Your task to perform on an android device: toggle pop-ups in chrome Image 0: 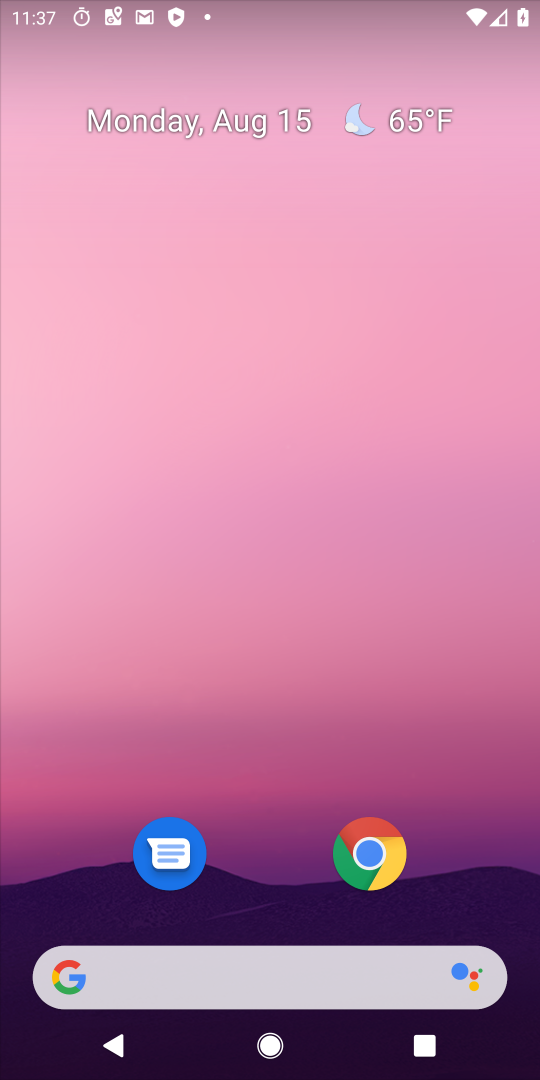
Step 0: click (376, 863)
Your task to perform on an android device: toggle pop-ups in chrome Image 1: 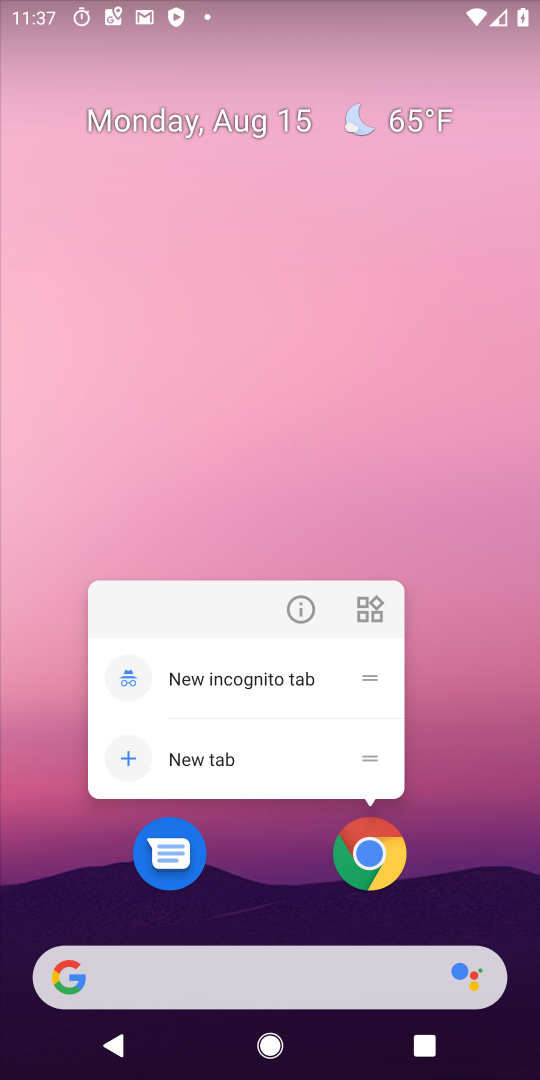
Step 1: click (376, 863)
Your task to perform on an android device: toggle pop-ups in chrome Image 2: 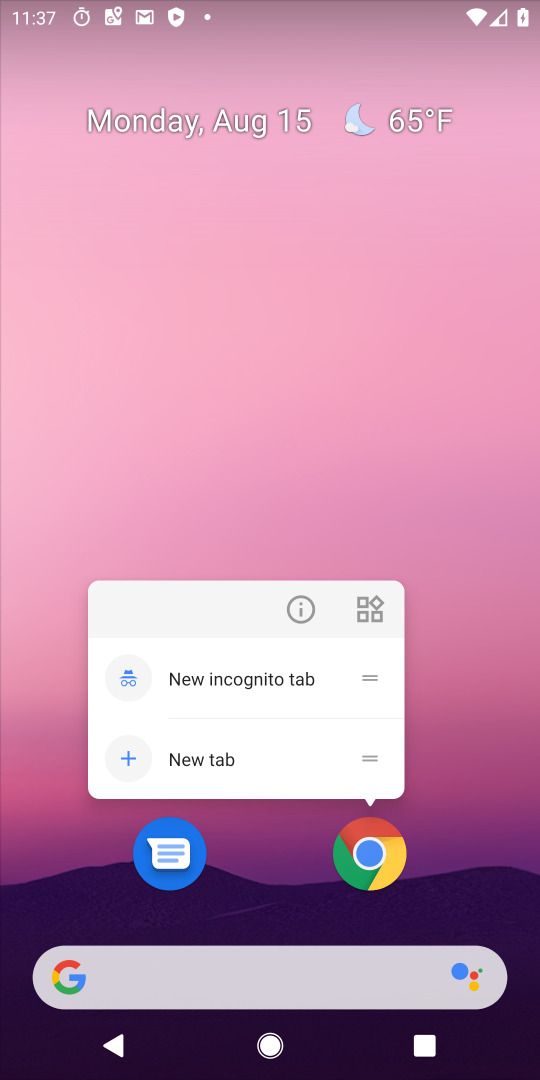
Step 2: click (361, 852)
Your task to perform on an android device: toggle pop-ups in chrome Image 3: 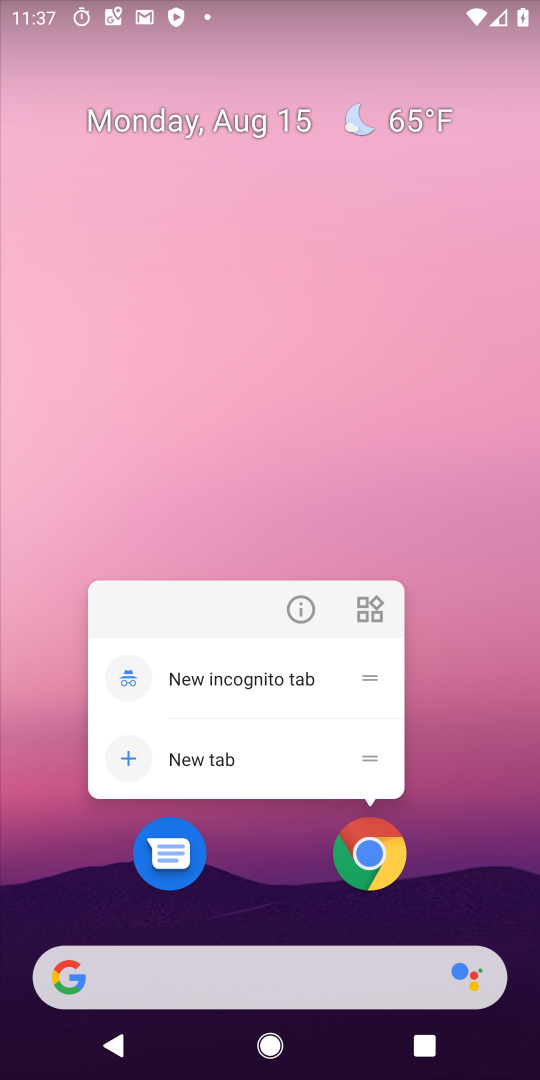
Step 3: click (361, 850)
Your task to perform on an android device: toggle pop-ups in chrome Image 4: 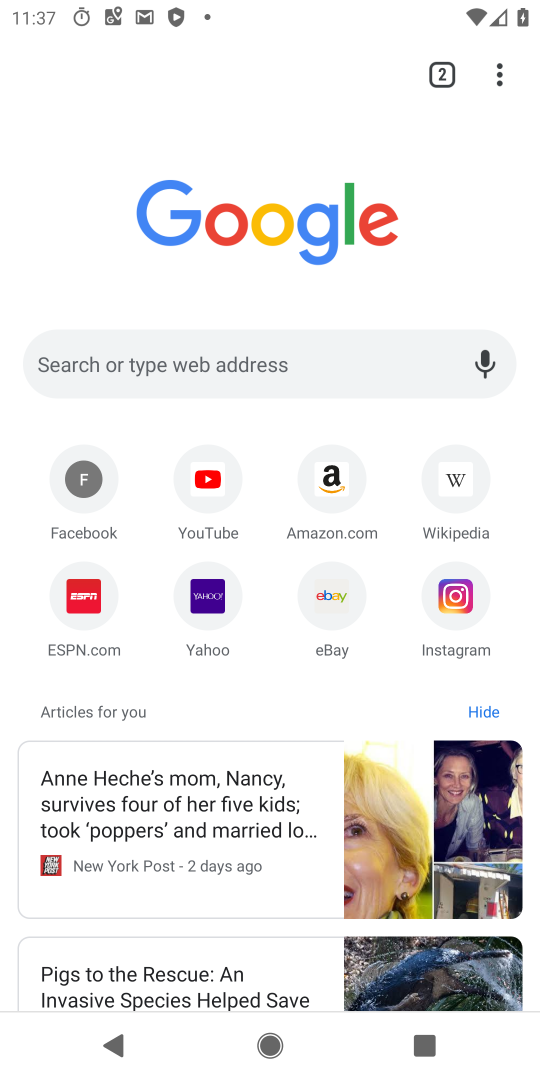
Step 4: click (494, 69)
Your task to perform on an android device: toggle pop-ups in chrome Image 5: 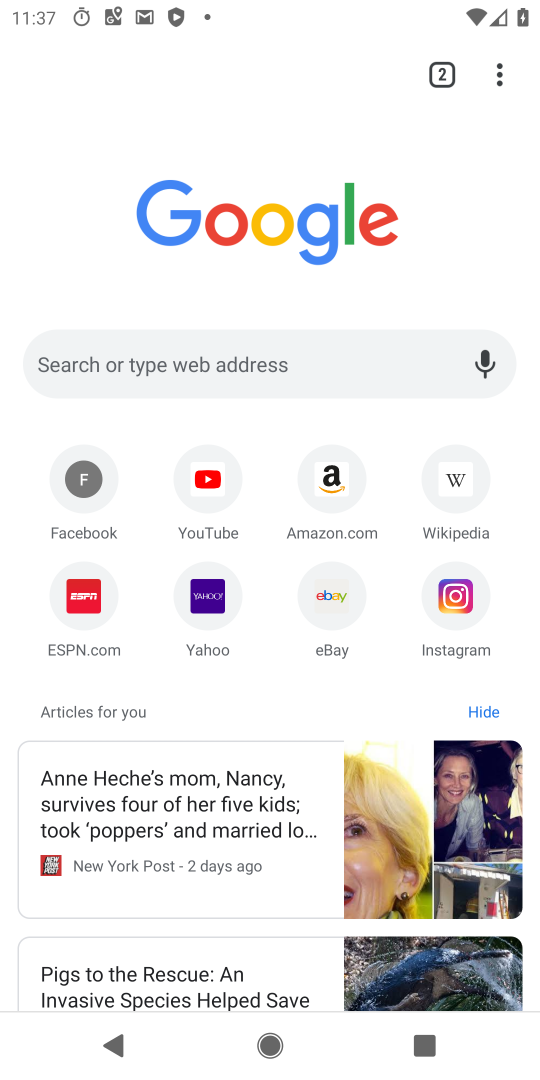
Step 5: click (497, 58)
Your task to perform on an android device: toggle pop-ups in chrome Image 6: 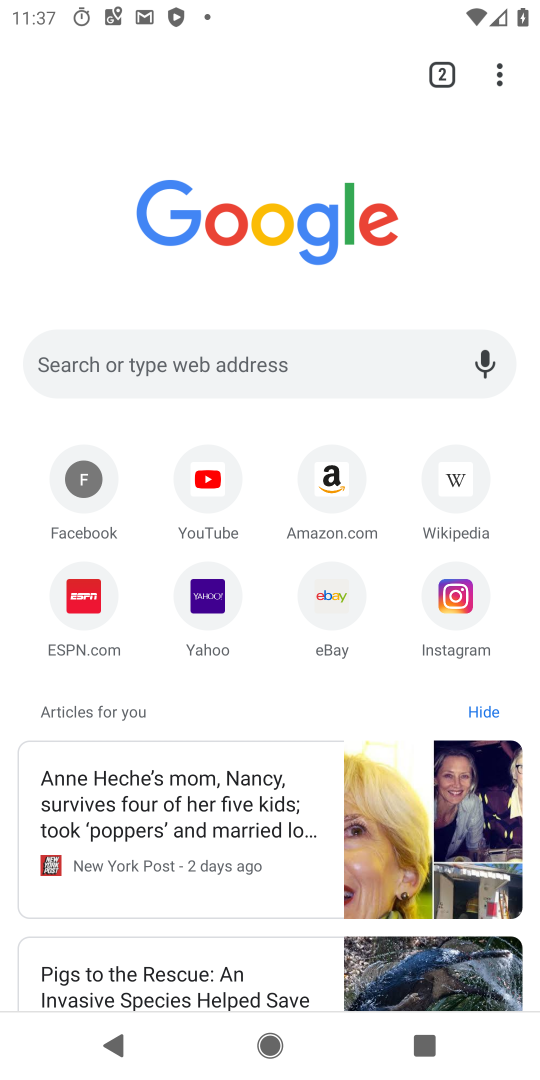
Step 6: click (509, 81)
Your task to perform on an android device: toggle pop-ups in chrome Image 7: 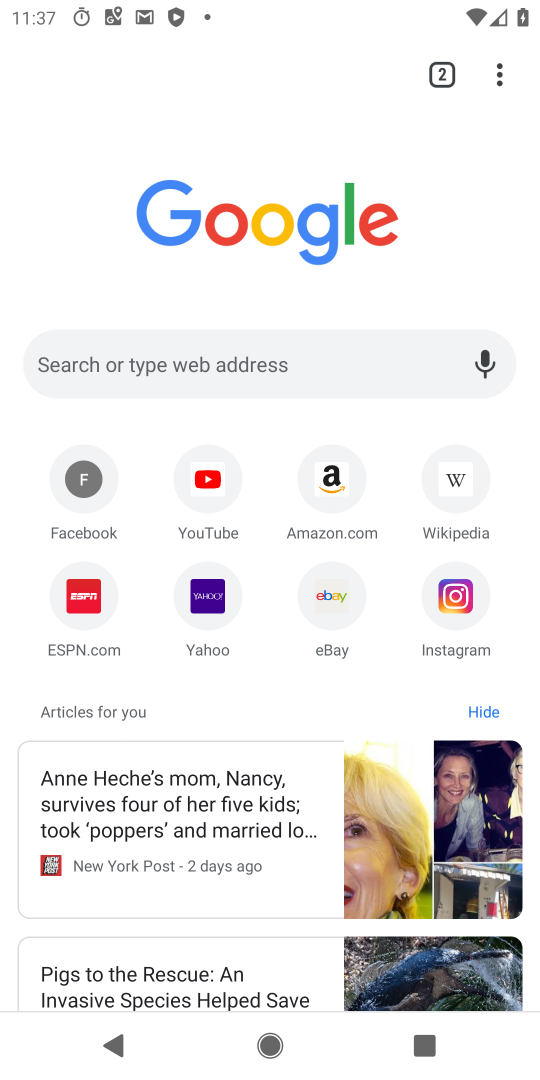
Step 7: click (495, 69)
Your task to perform on an android device: toggle pop-ups in chrome Image 8: 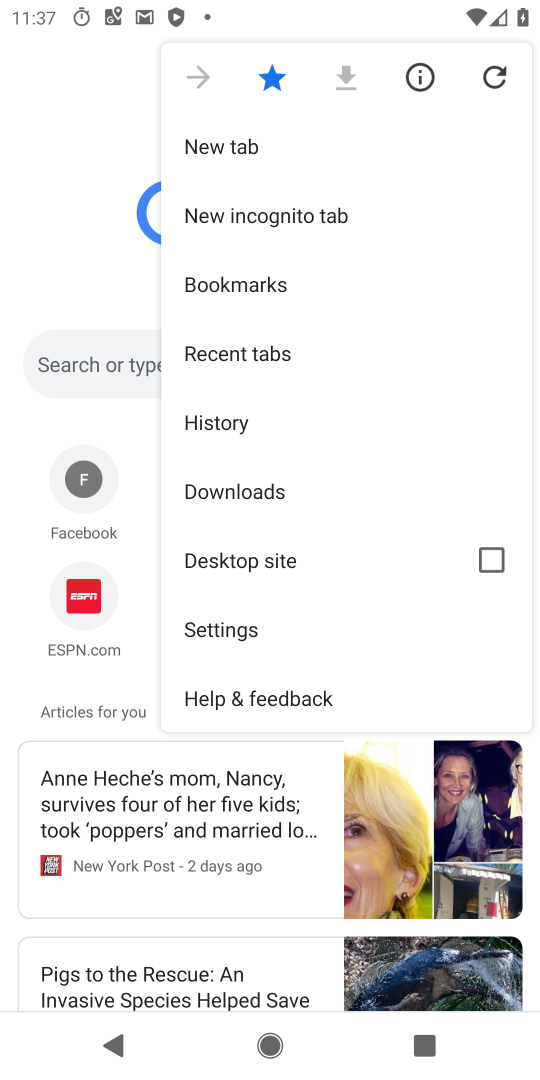
Step 8: click (232, 620)
Your task to perform on an android device: toggle pop-ups in chrome Image 9: 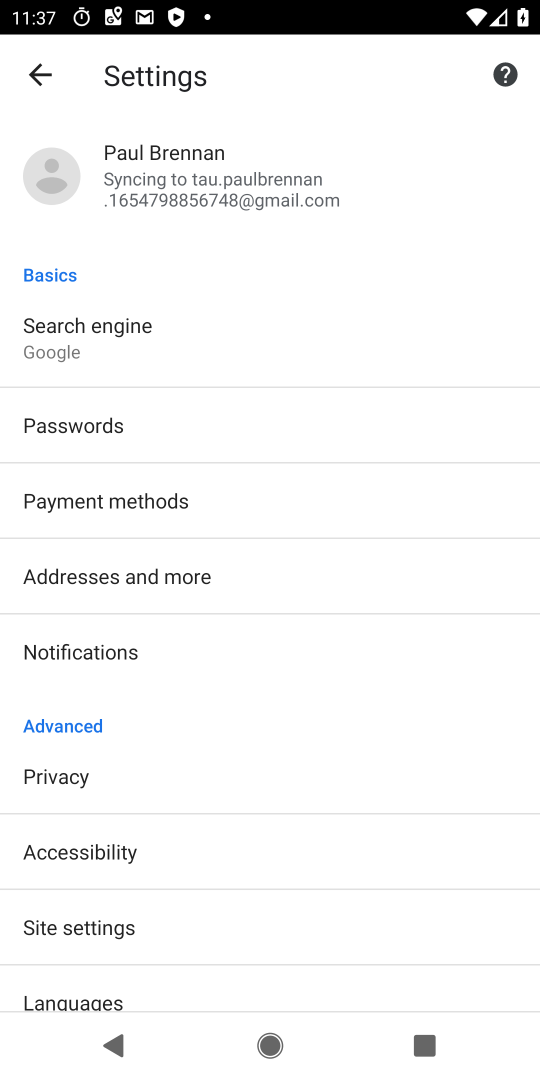
Step 9: click (71, 928)
Your task to perform on an android device: toggle pop-ups in chrome Image 10: 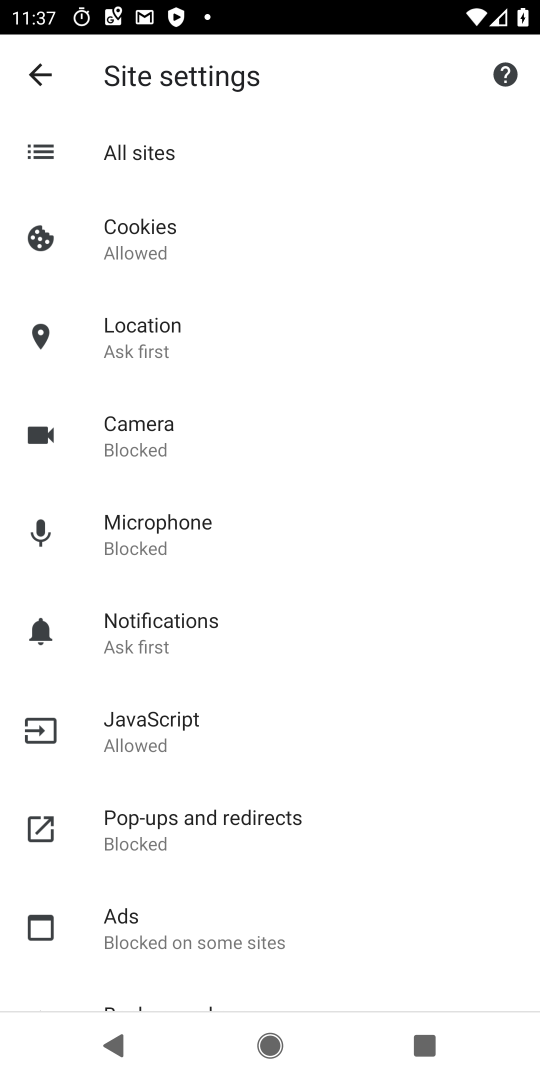
Step 10: click (179, 831)
Your task to perform on an android device: toggle pop-ups in chrome Image 11: 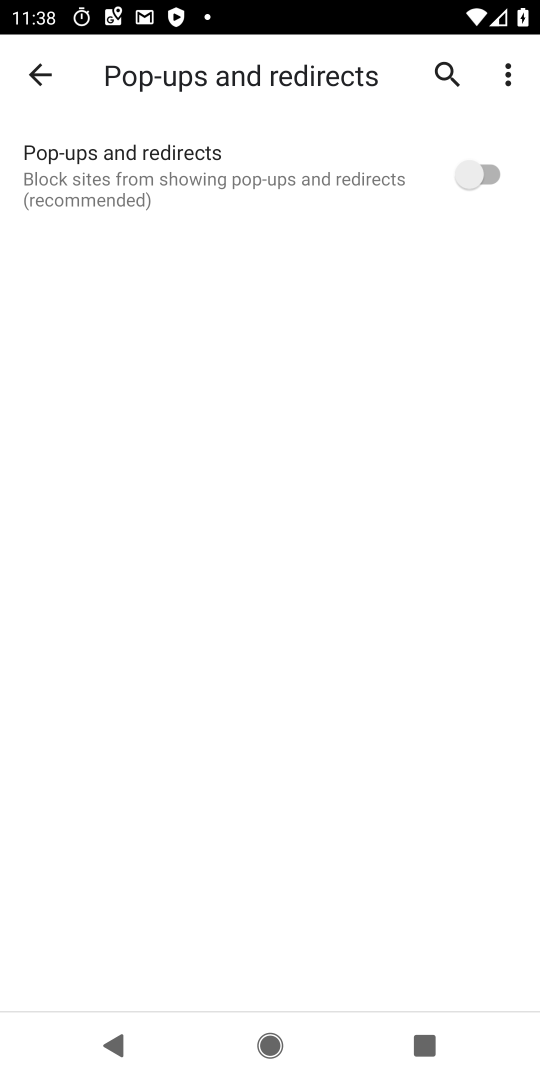
Step 11: click (484, 174)
Your task to perform on an android device: toggle pop-ups in chrome Image 12: 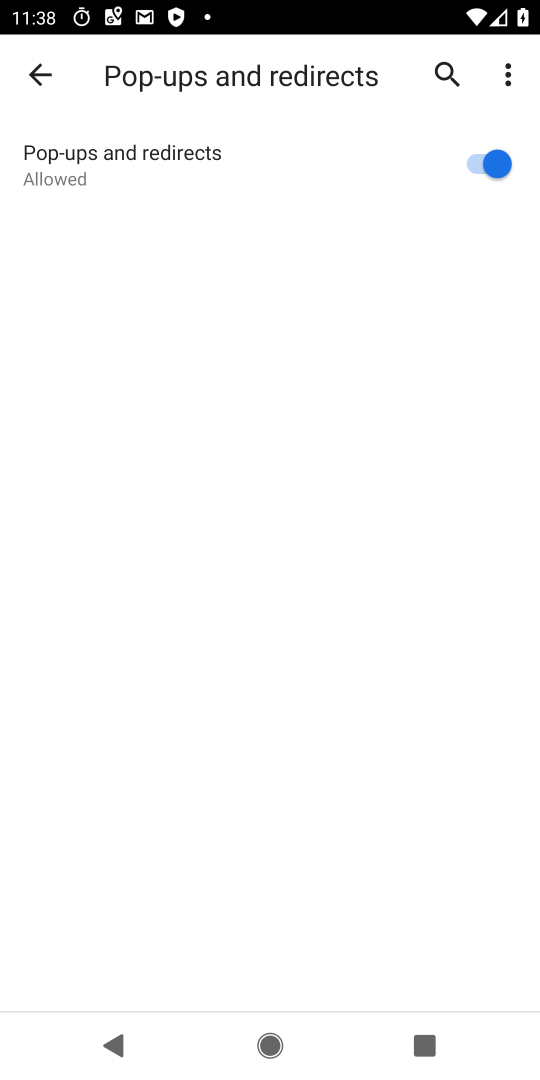
Step 12: task complete